Your task to perform on an android device: Open accessibility settings Image 0: 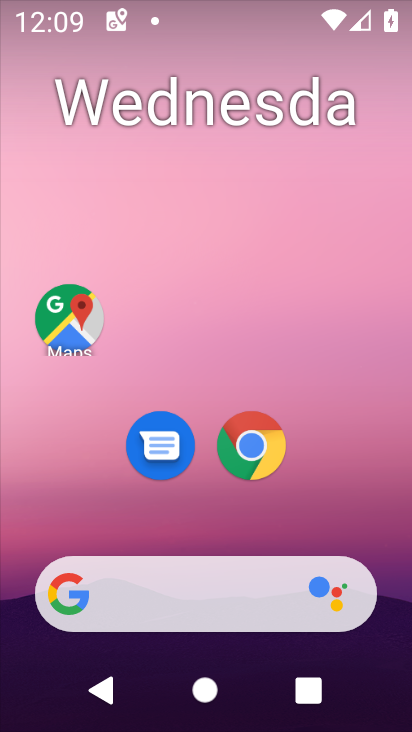
Step 0: drag from (246, 719) to (140, 3)
Your task to perform on an android device: Open accessibility settings Image 1: 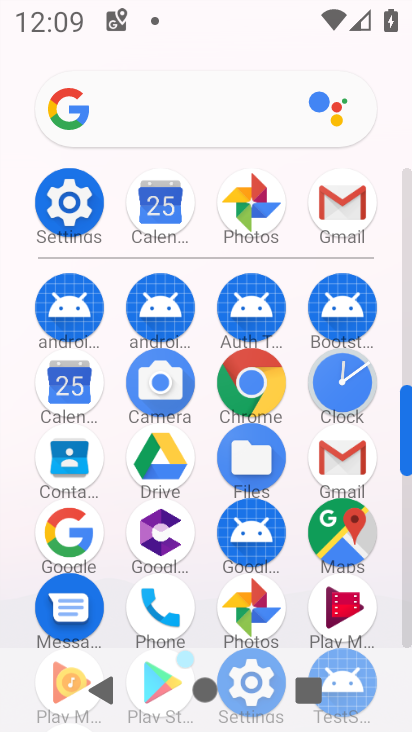
Step 1: click (70, 212)
Your task to perform on an android device: Open accessibility settings Image 2: 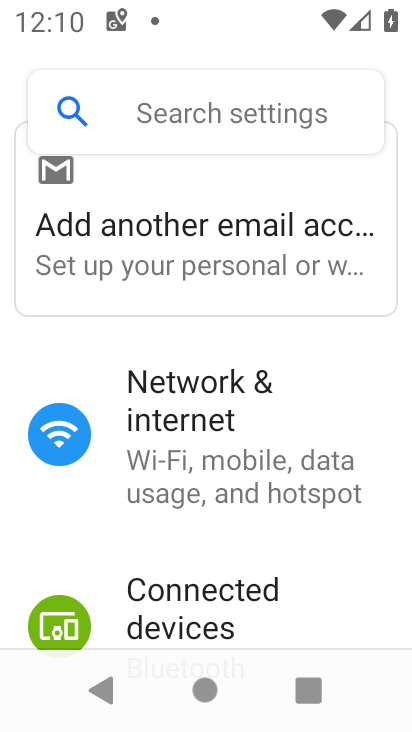
Step 2: drag from (206, 540) to (221, 187)
Your task to perform on an android device: Open accessibility settings Image 3: 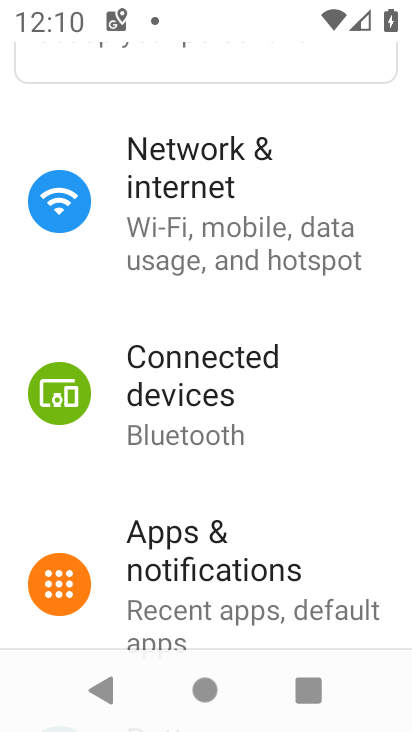
Step 3: drag from (202, 608) to (202, 69)
Your task to perform on an android device: Open accessibility settings Image 4: 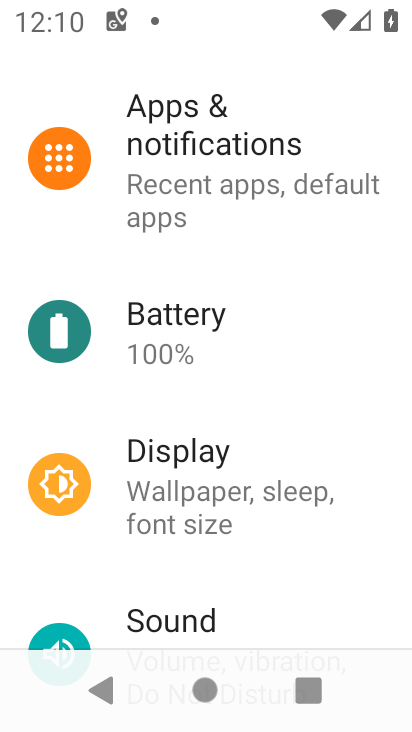
Step 4: drag from (201, 478) to (206, 9)
Your task to perform on an android device: Open accessibility settings Image 5: 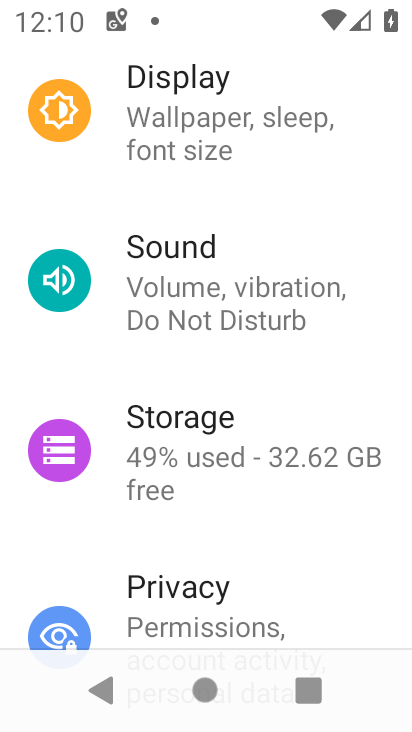
Step 5: drag from (197, 570) to (191, 152)
Your task to perform on an android device: Open accessibility settings Image 6: 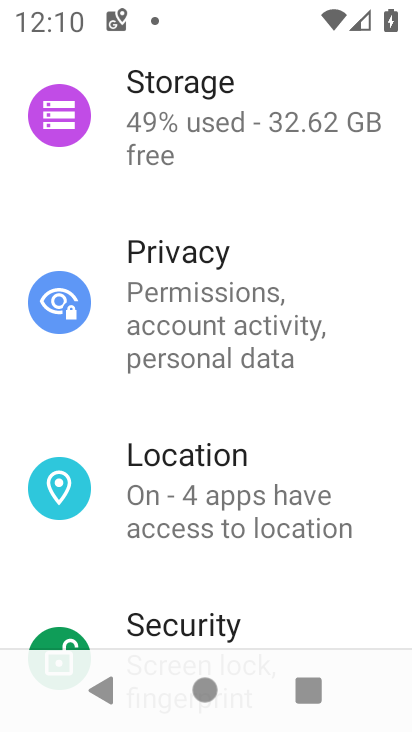
Step 6: drag from (188, 588) to (188, 499)
Your task to perform on an android device: Open accessibility settings Image 7: 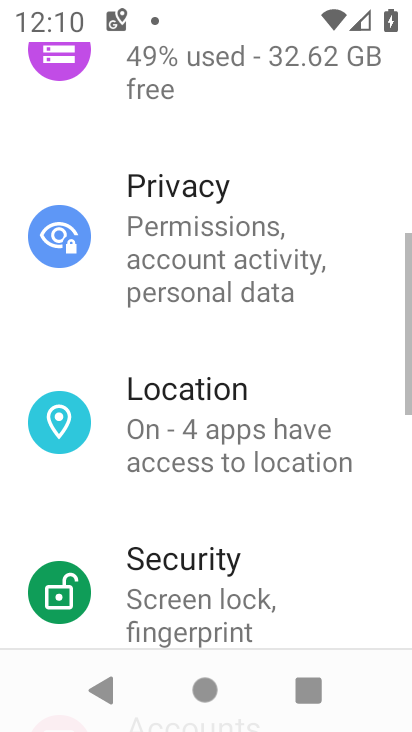
Step 7: drag from (186, 251) to (182, 203)
Your task to perform on an android device: Open accessibility settings Image 8: 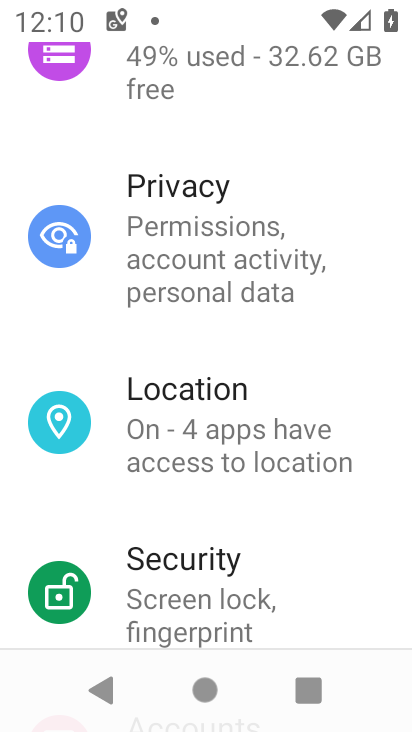
Step 8: drag from (154, 599) to (155, 124)
Your task to perform on an android device: Open accessibility settings Image 9: 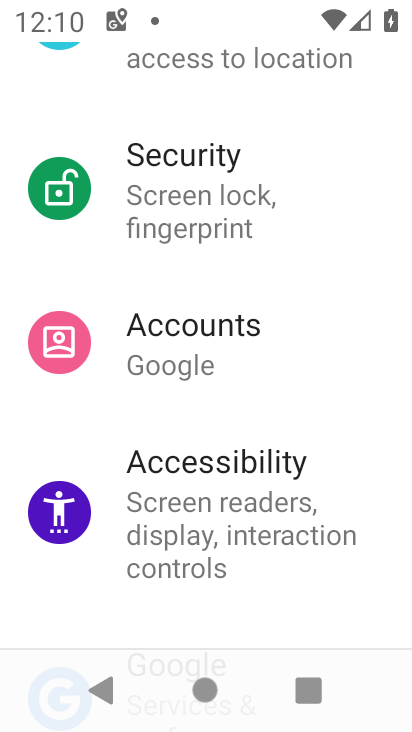
Step 9: click (175, 520)
Your task to perform on an android device: Open accessibility settings Image 10: 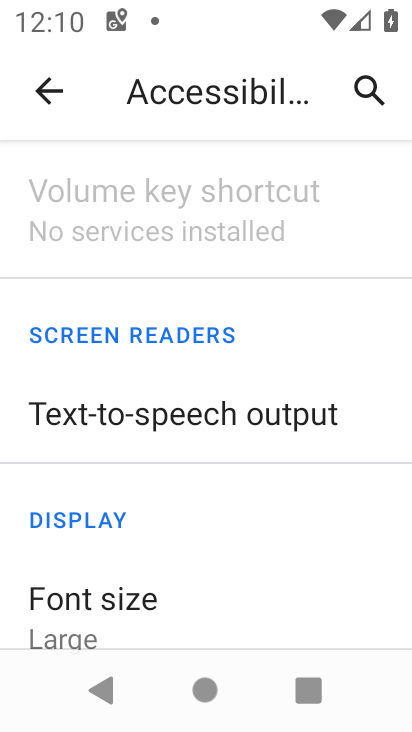
Step 10: task complete